Your task to perform on an android device: What's the weather going to be this weekend? Image 0: 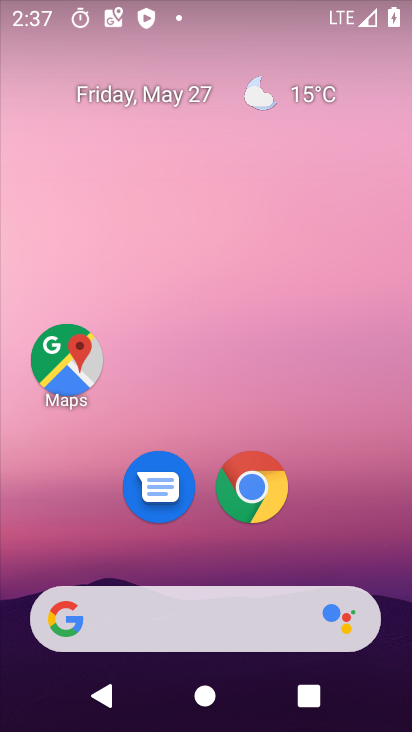
Step 0: drag from (327, 504) to (362, 198)
Your task to perform on an android device: What's the weather going to be this weekend? Image 1: 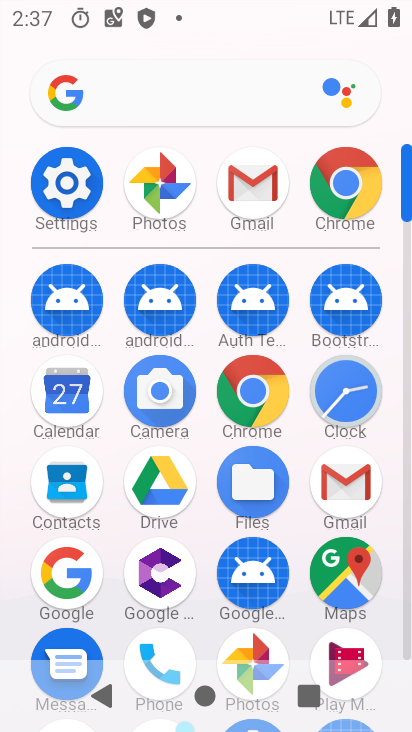
Step 1: press home button
Your task to perform on an android device: What's the weather going to be this weekend? Image 2: 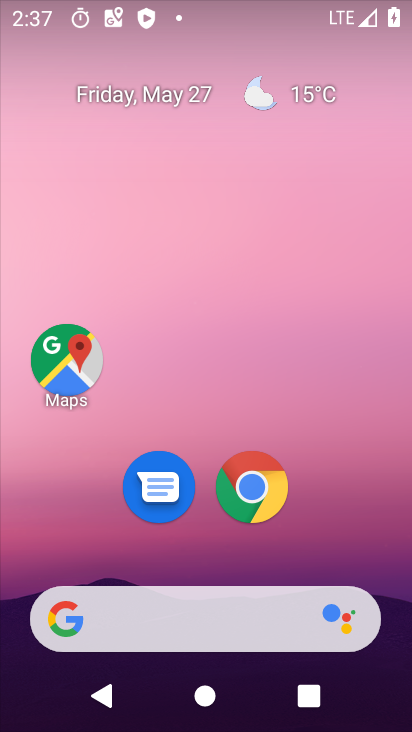
Step 2: click (323, 87)
Your task to perform on an android device: What's the weather going to be this weekend? Image 3: 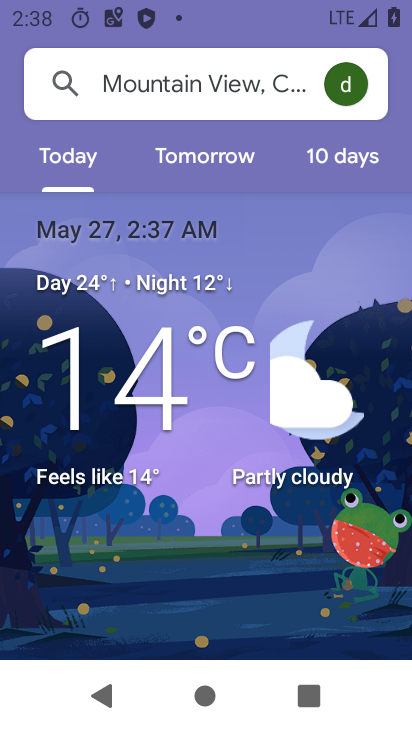
Step 3: click (358, 171)
Your task to perform on an android device: What's the weather going to be this weekend? Image 4: 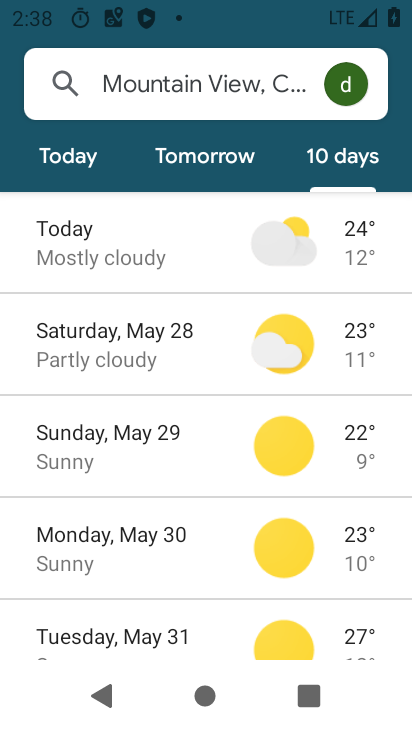
Step 4: task complete